Your task to perform on an android device: find which apps use the phone's location Image 0: 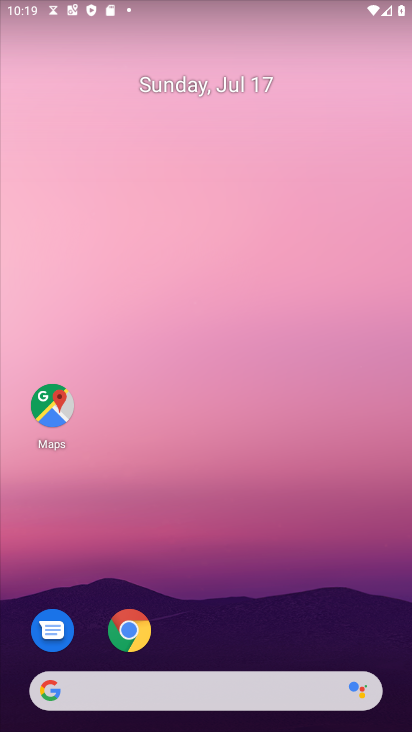
Step 0: drag from (198, 687) to (16, 0)
Your task to perform on an android device: find which apps use the phone's location Image 1: 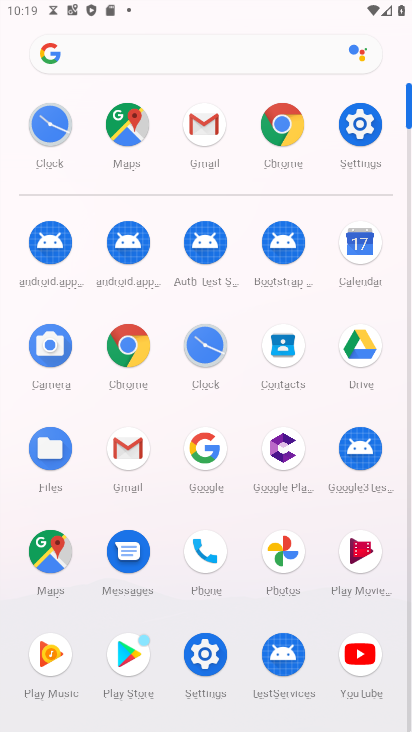
Step 1: click (393, 130)
Your task to perform on an android device: find which apps use the phone's location Image 2: 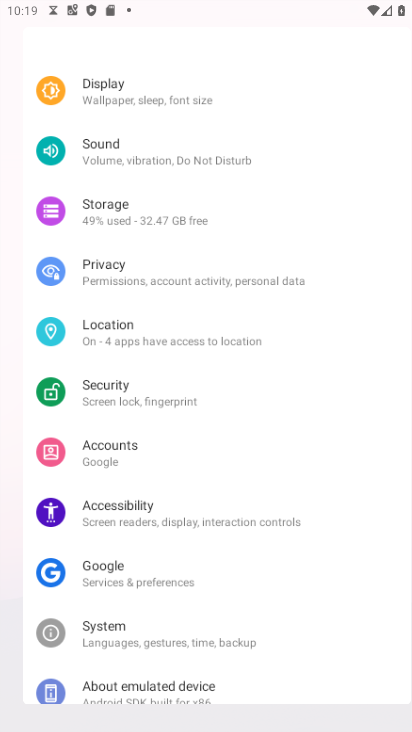
Step 2: click (346, 127)
Your task to perform on an android device: find which apps use the phone's location Image 3: 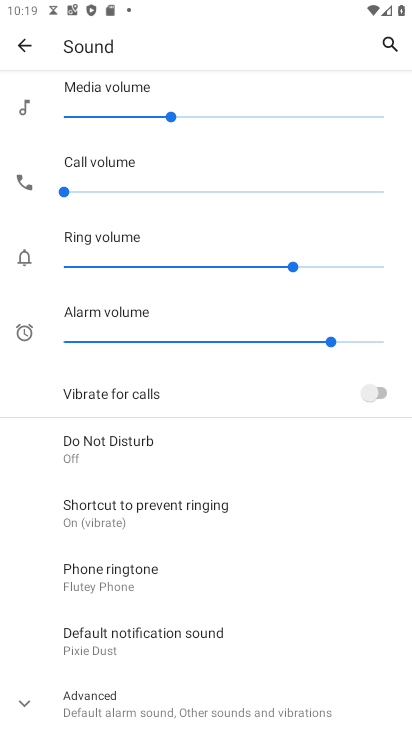
Step 3: press back button
Your task to perform on an android device: find which apps use the phone's location Image 4: 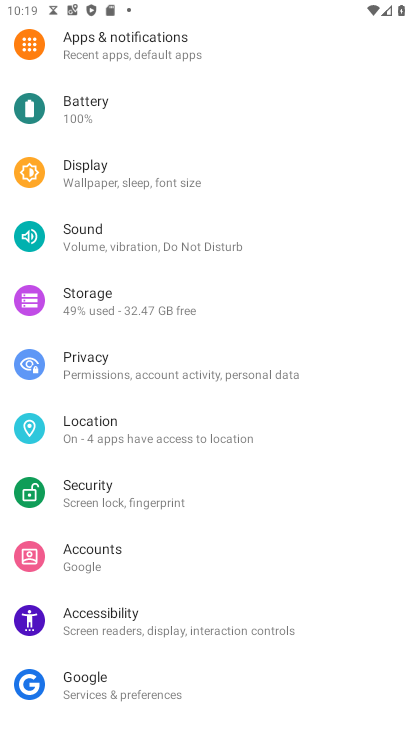
Step 4: click (112, 421)
Your task to perform on an android device: find which apps use the phone's location Image 5: 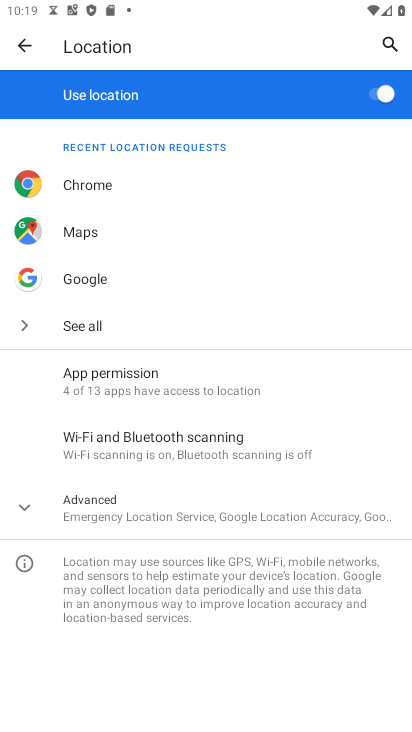
Step 5: click (95, 381)
Your task to perform on an android device: find which apps use the phone's location Image 6: 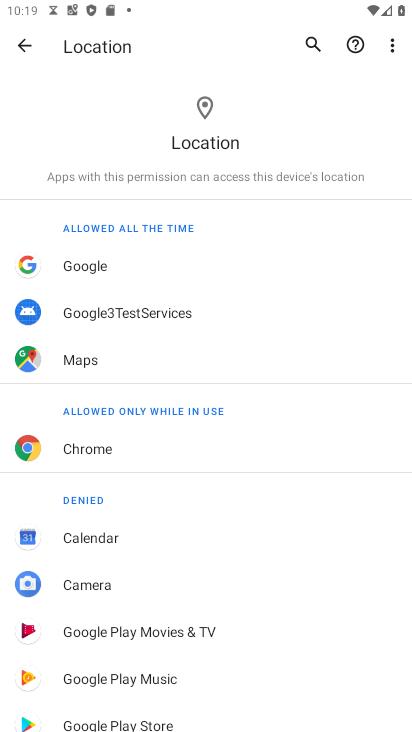
Step 6: task complete